Your task to perform on an android device: Open Reddit.com Image 0: 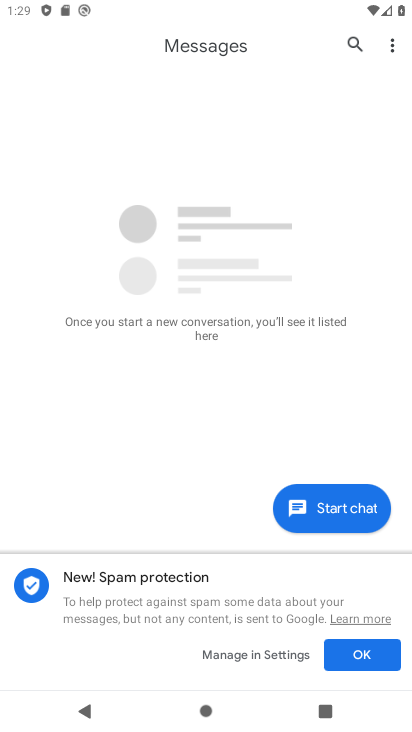
Step 0: press home button
Your task to perform on an android device: Open Reddit.com Image 1: 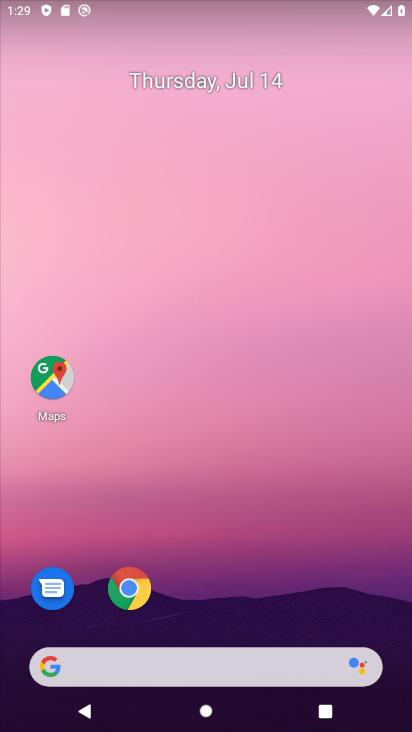
Step 1: drag from (263, 464) to (204, 0)
Your task to perform on an android device: Open Reddit.com Image 2: 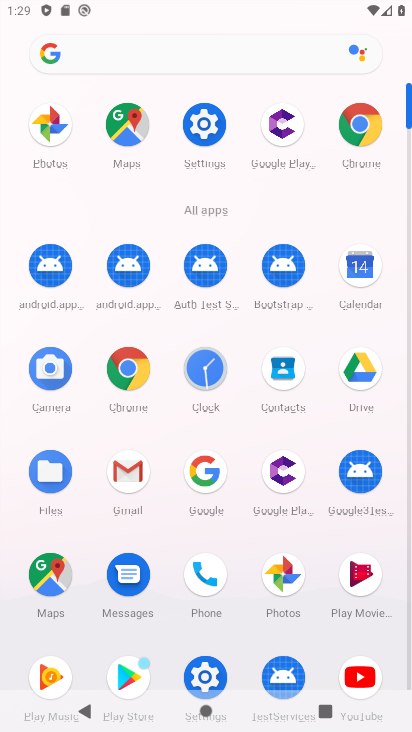
Step 2: click (353, 126)
Your task to perform on an android device: Open Reddit.com Image 3: 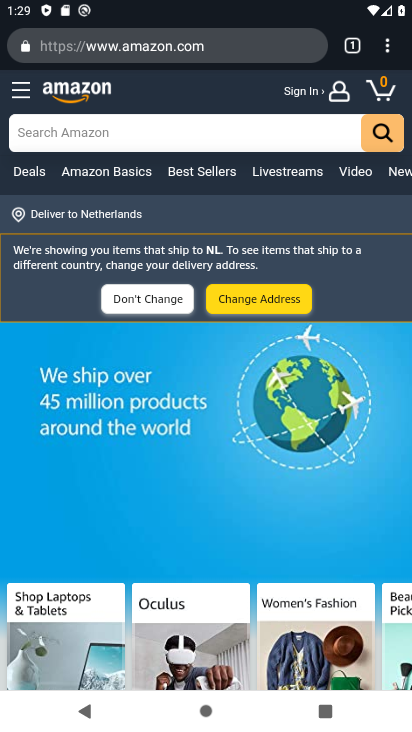
Step 3: click (226, 46)
Your task to perform on an android device: Open Reddit.com Image 4: 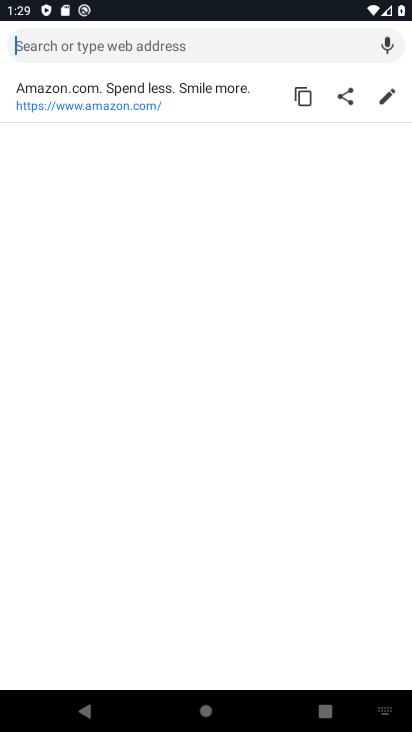
Step 4: press enter
Your task to perform on an android device: Open Reddit.com Image 5: 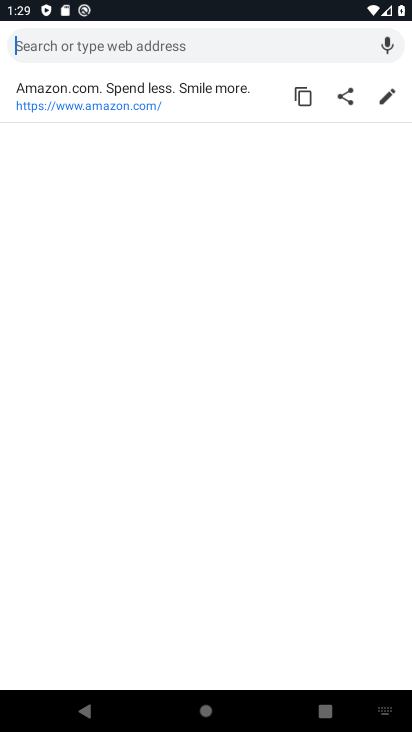
Step 5: type " Reddit.com"
Your task to perform on an android device: Open Reddit.com Image 6: 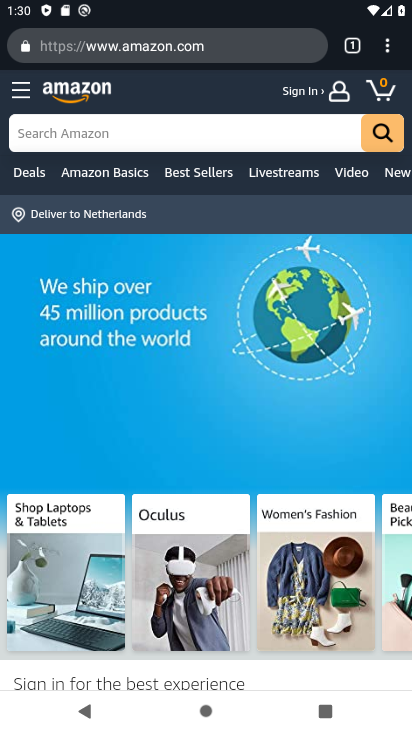
Step 6: task complete